Your task to perform on an android device: find which apps use the phone's location Image 0: 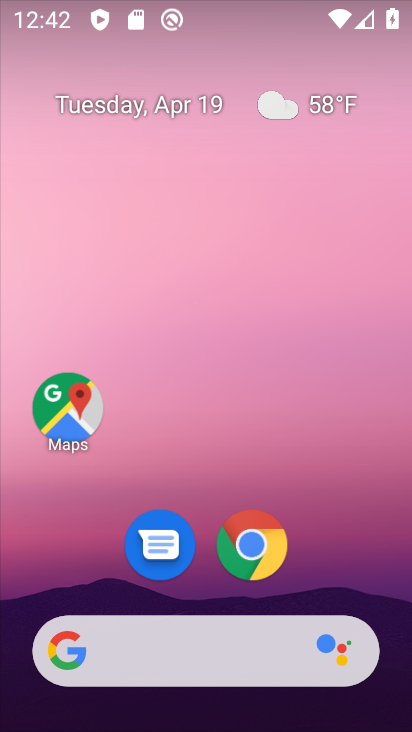
Step 0: press back button
Your task to perform on an android device: find which apps use the phone's location Image 1: 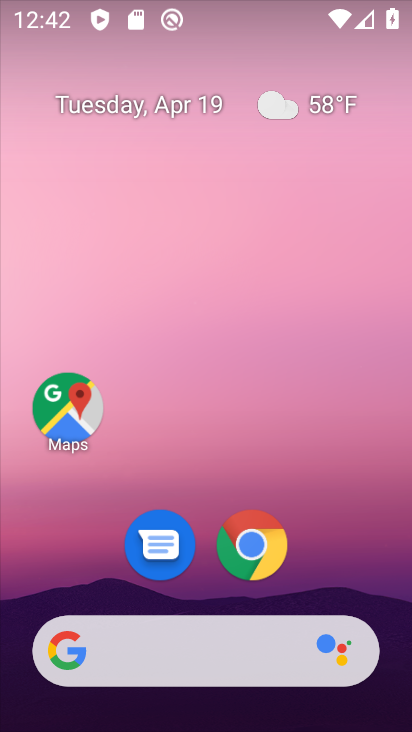
Step 1: click (247, 545)
Your task to perform on an android device: find which apps use the phone's location Image 2: 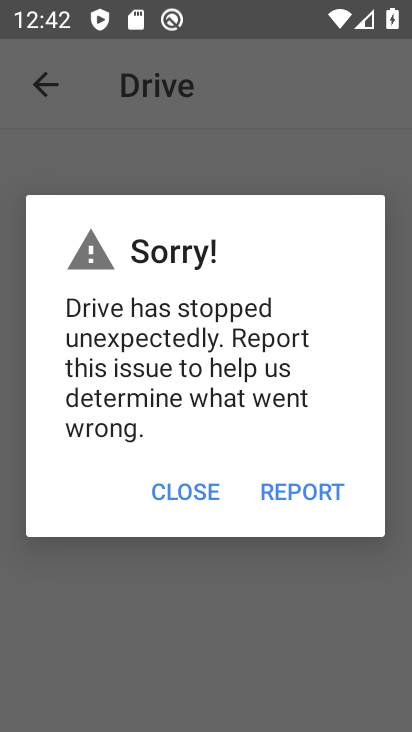
Step 2: press home button
Your task to perform on an android device: find which apps use the phone's location Image 3: 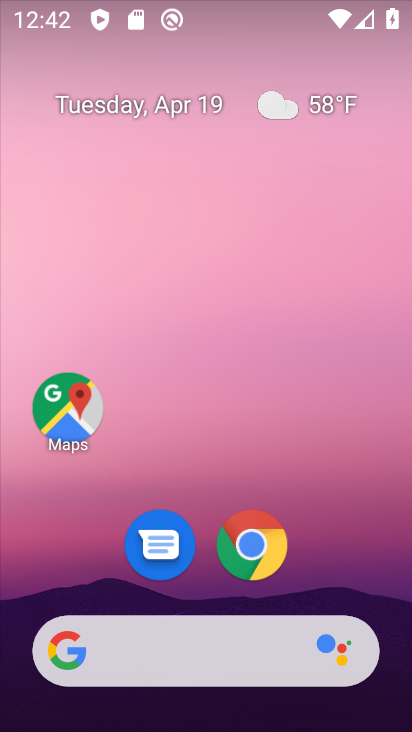
Step 3: drag from (209, 313) to (240, 44)
Your task to perform on an android device: find which apps use the phone's location Image 4: 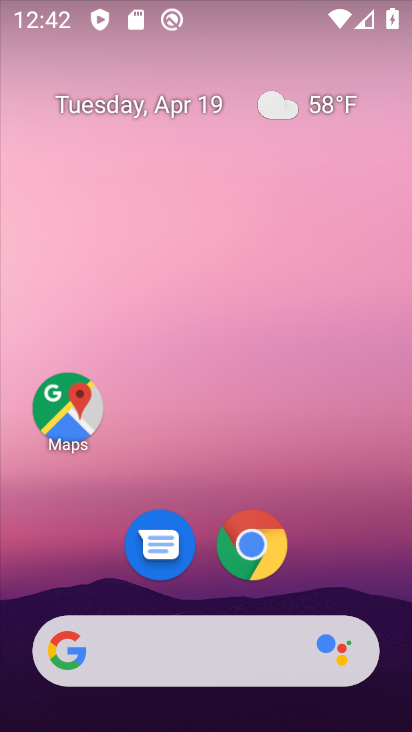
Step 4: drag from (164, 448) to (263, 14)
Your task to perform on an android device: find which apps use the phone's location Image 5: 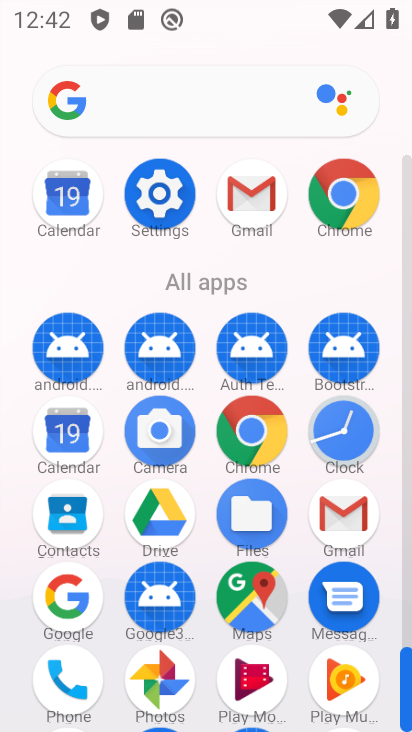
Step 5: click (158, 169)
Your task to perform on an android device: find which apps use the phone's location Image 6: 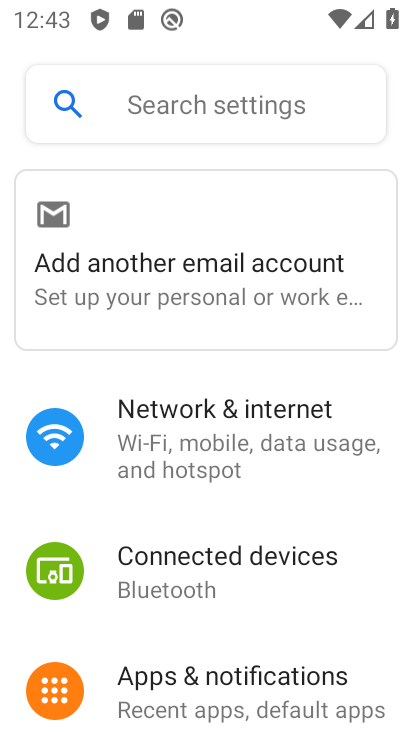
Step 6: drag from (206, 640) to (307, 66)
Your task to perform on an android device: find which apps use the phone's location Image 7: 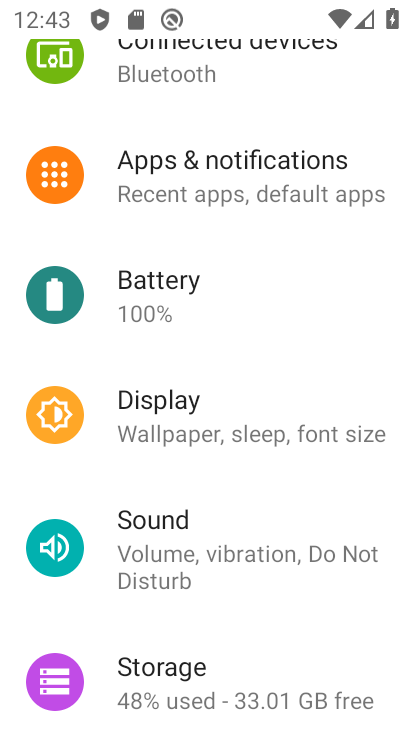
Step 7: drag from (173, 544) to (250, 29)
Your task to perform on an android device: find which apps use the phone's location Image 8: 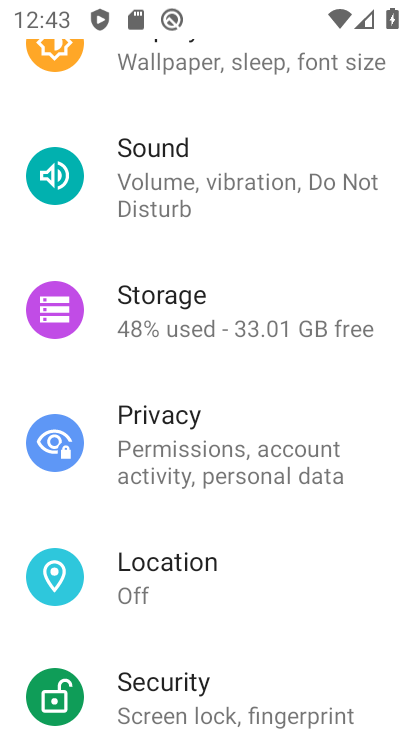
Step 8: click (136, 575)
Your task to perform on an android device: find which apps use the phone's location Image 9: 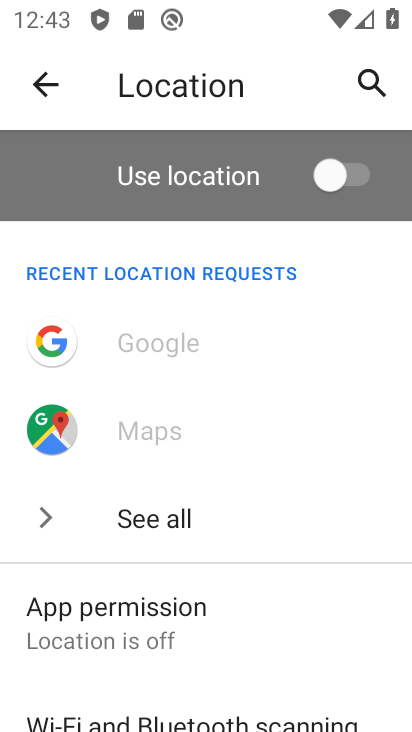
Step 9: click (150, 637)
Your task to perform on an android device: find which apps use the phone's location Image 10: 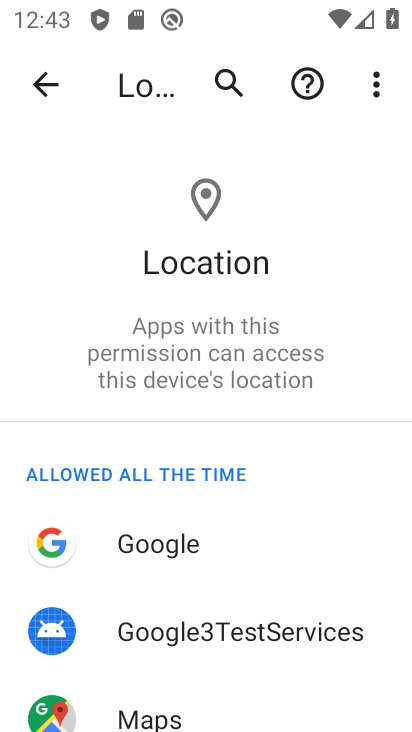
Step 10: task complete